Your task to perform on an android device: Go to ESPN.com Image 0: 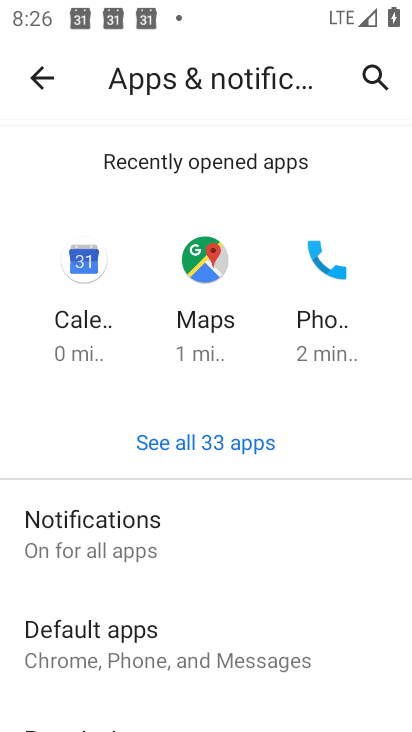
Step 0: press home button
Your task to perform on an android device: Go to ESPN.com Image 1: 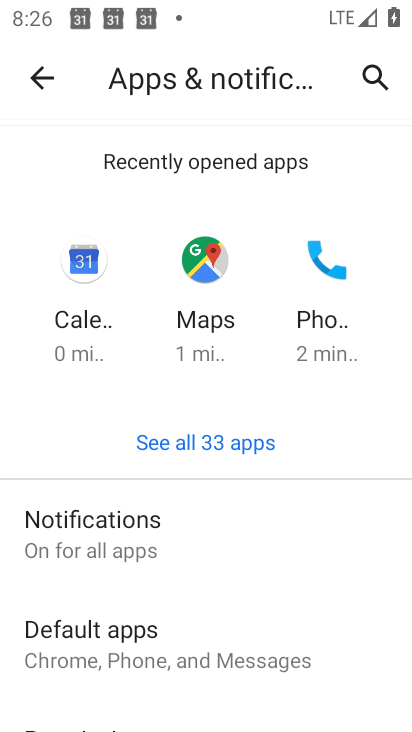
Step 1: press home button
Your task to perform on an android device: Go to ESPN.com Image 2: 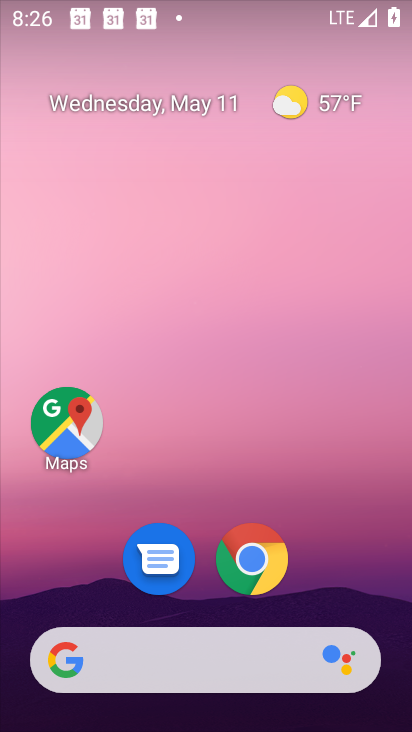
Step 2: click (253, 551)
Your task to perform on an android device: Go to ESPN.com Image 3: 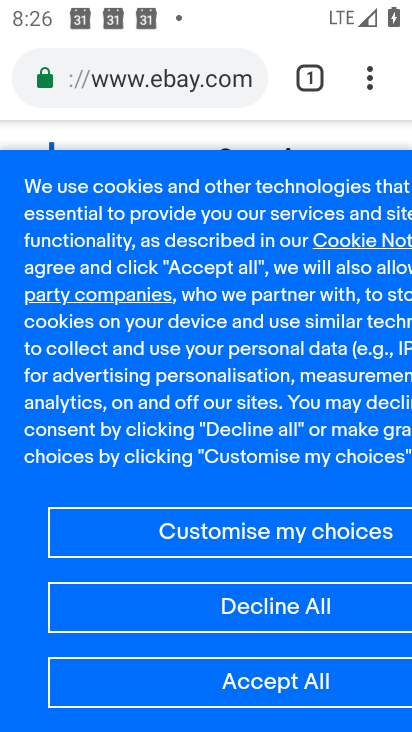
Step 3: click (183, 72)
Your task to perform on an android device: Go to ESPN.com Image 4: 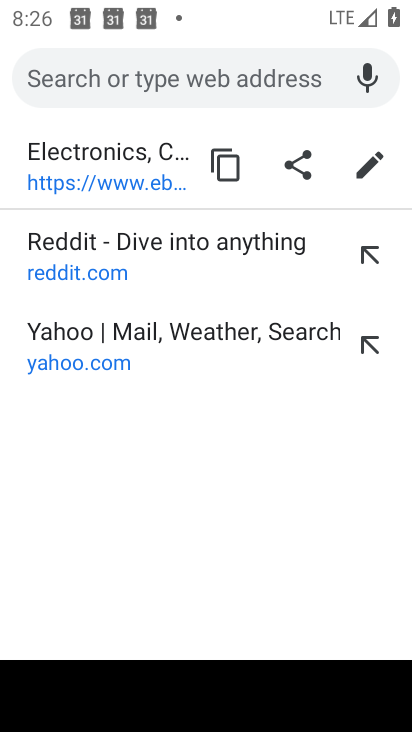
Step 4: type " ESPN.com"
Your task to perform on an android device: Go to ESPN.com Image 5: 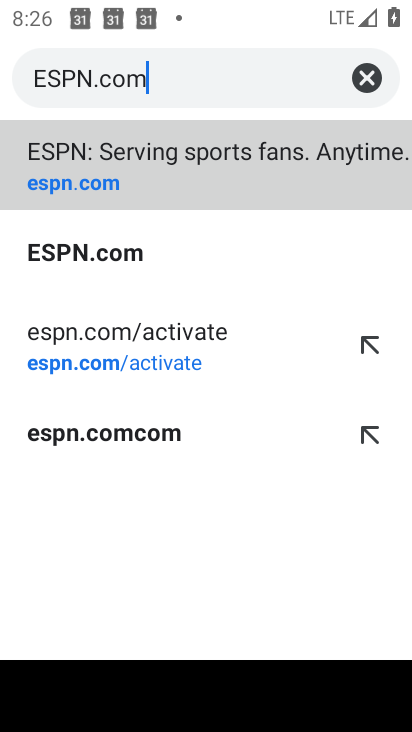
Step 5: click (267, 192)
Your task to perform on an android device: Go to ESPN.com Image 6: 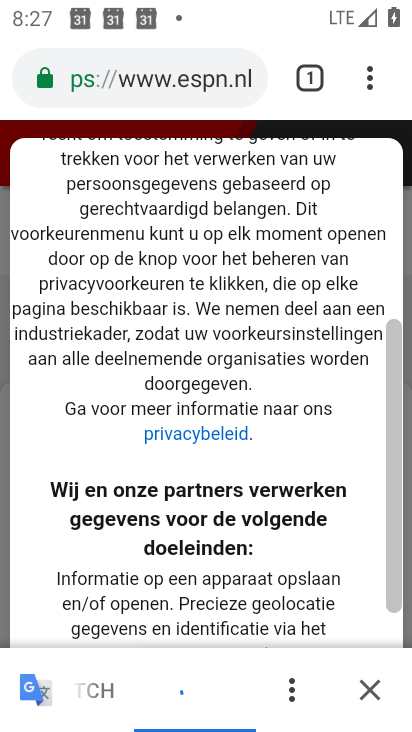
Step 6: task complete